Your task to perform on an android device: Turn off the flashlight Image 0: 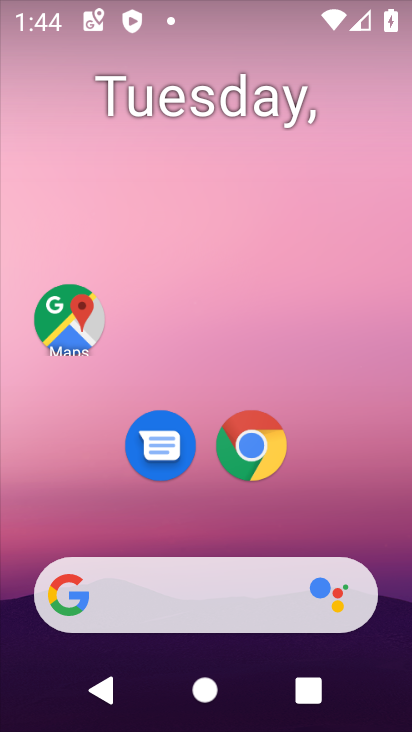
Step 0: drag from (314, 456) to (355, 94)
Your task to perform on an android device: Turn off the flashlight Image 1: 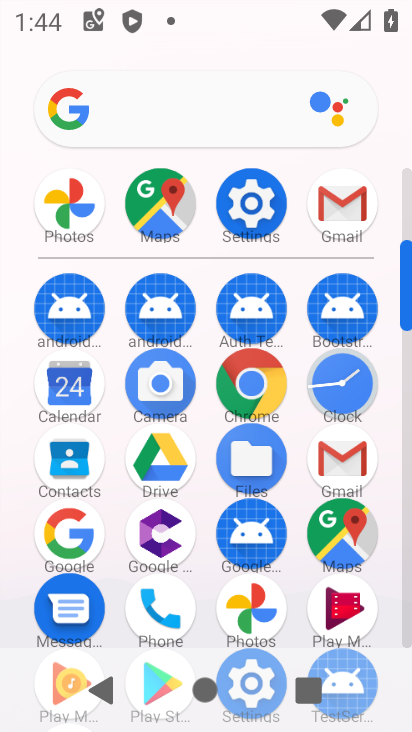
Step 1: click (269, 195)
Your task to perform on an android device: Turn off the flashlight Image 2: 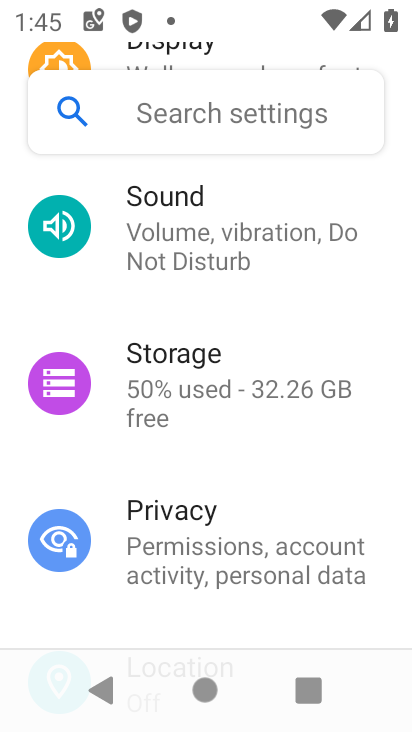
Step 2: task complete